Your task to perform on an android device: uninstall "WhatsApp Messenger" Image 0: 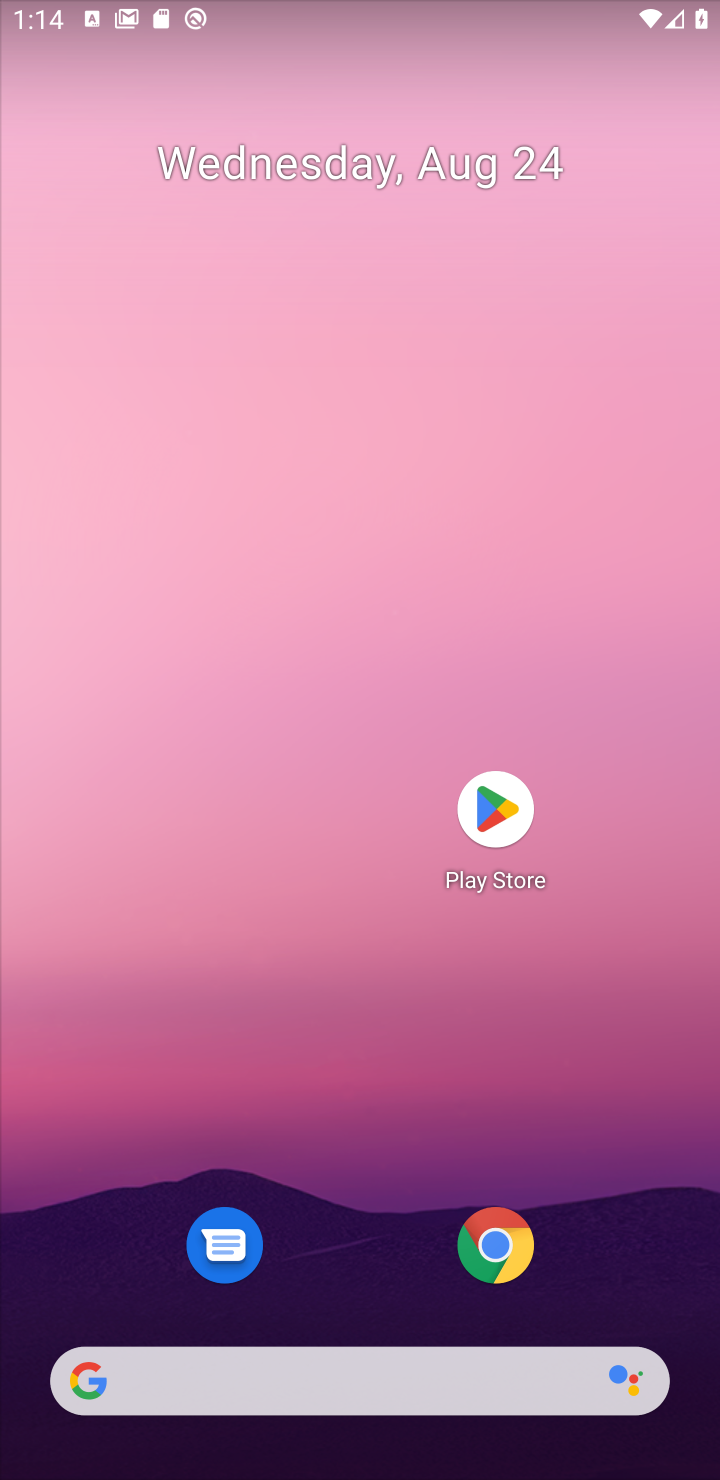
Step 0: click (476, 832)
Your task to perform on an android device: uninstall "WhatsApp Messenger" Image 1: 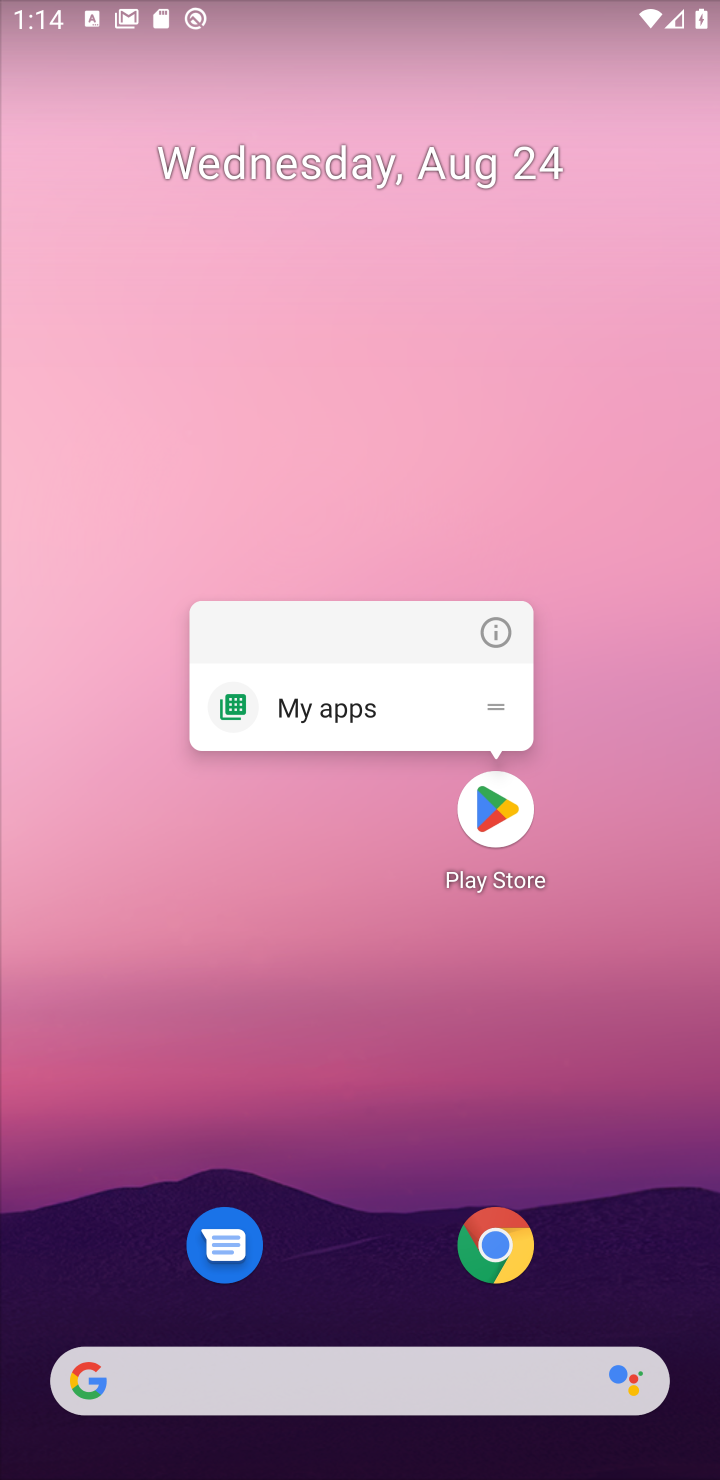
Step 1: click (469, 821)
Your task to perform on an android device: uninstall "WhatsApp Messenger" Image 2: 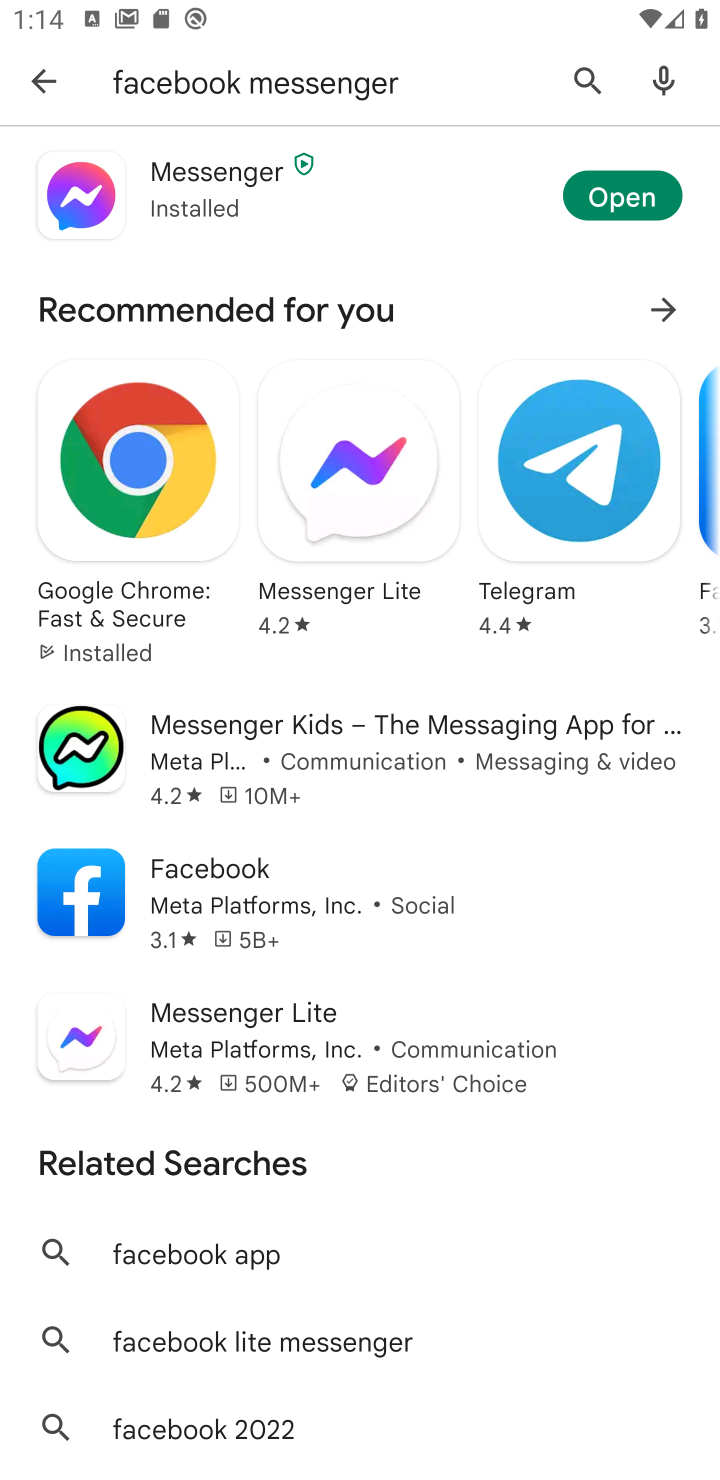
Step 2: click (580, 62)
Your task to perform on an android device: uninstall "WhatsApp Messenger" Image 3: 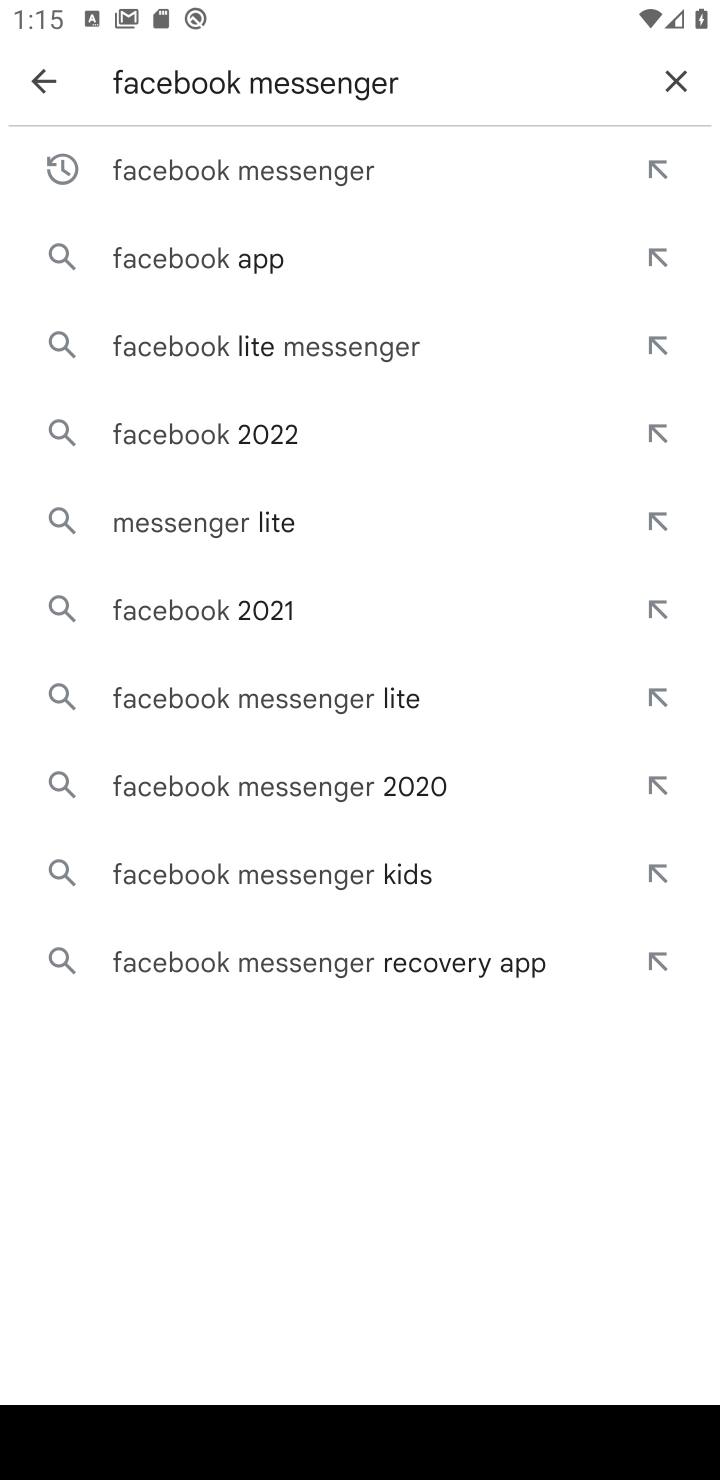
Step 3: click (676, 63)
Your task to perform on an android device: uninstall "WhatsApp Messenger" Image 4: 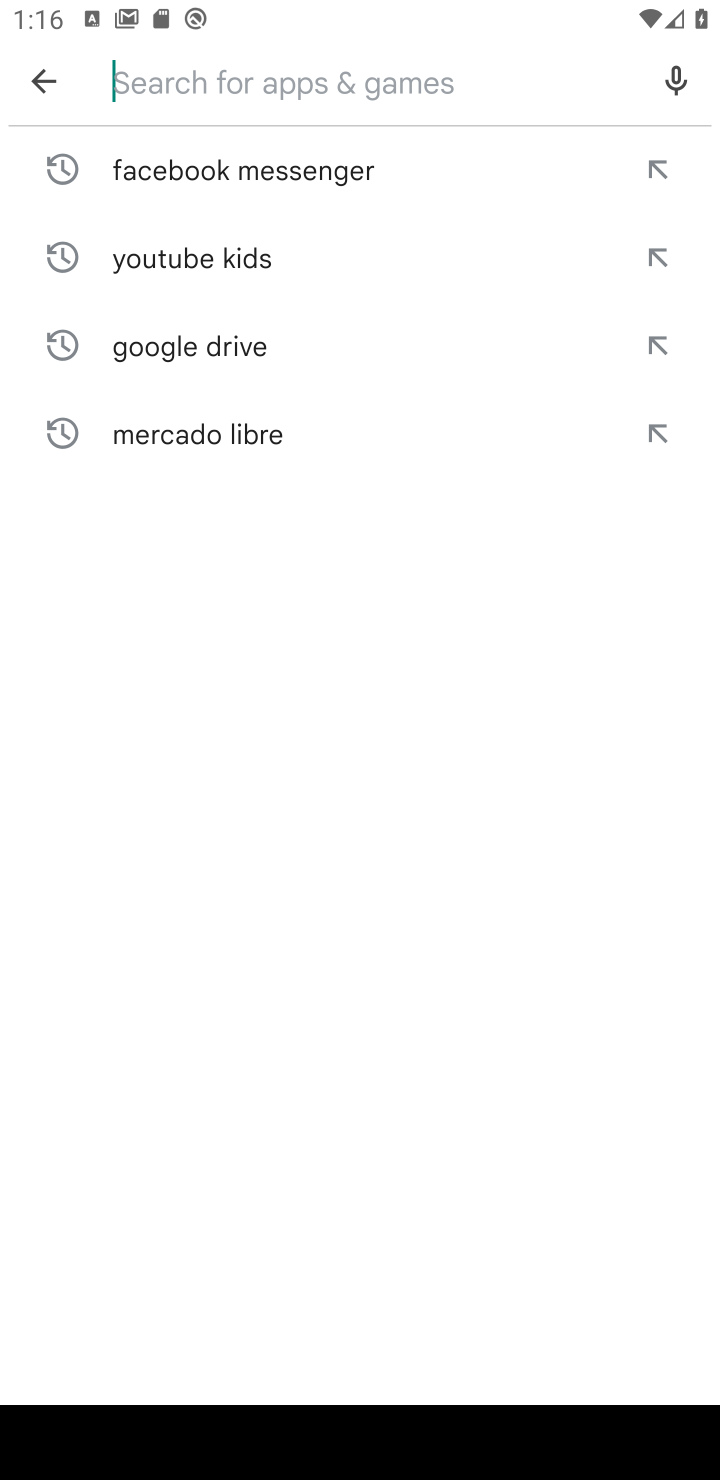
Step 4: type "WhatsApp Messenger"
Your task to perform on an android device: uninstall "WhatsApp Messenger" Image 5: 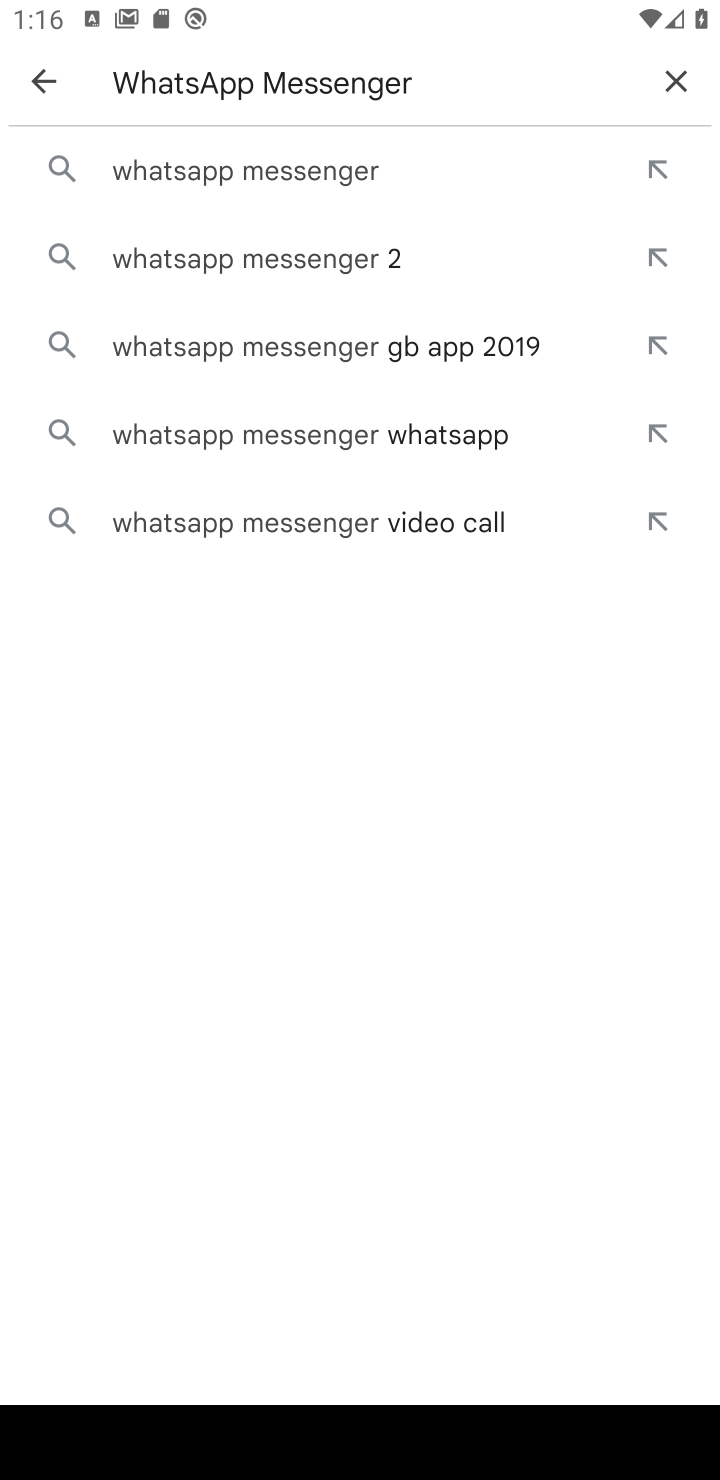
Step 5: click (285, 152)
Your task to perform on an android device: uninstall "WhatsApp Messenger" Image 6: 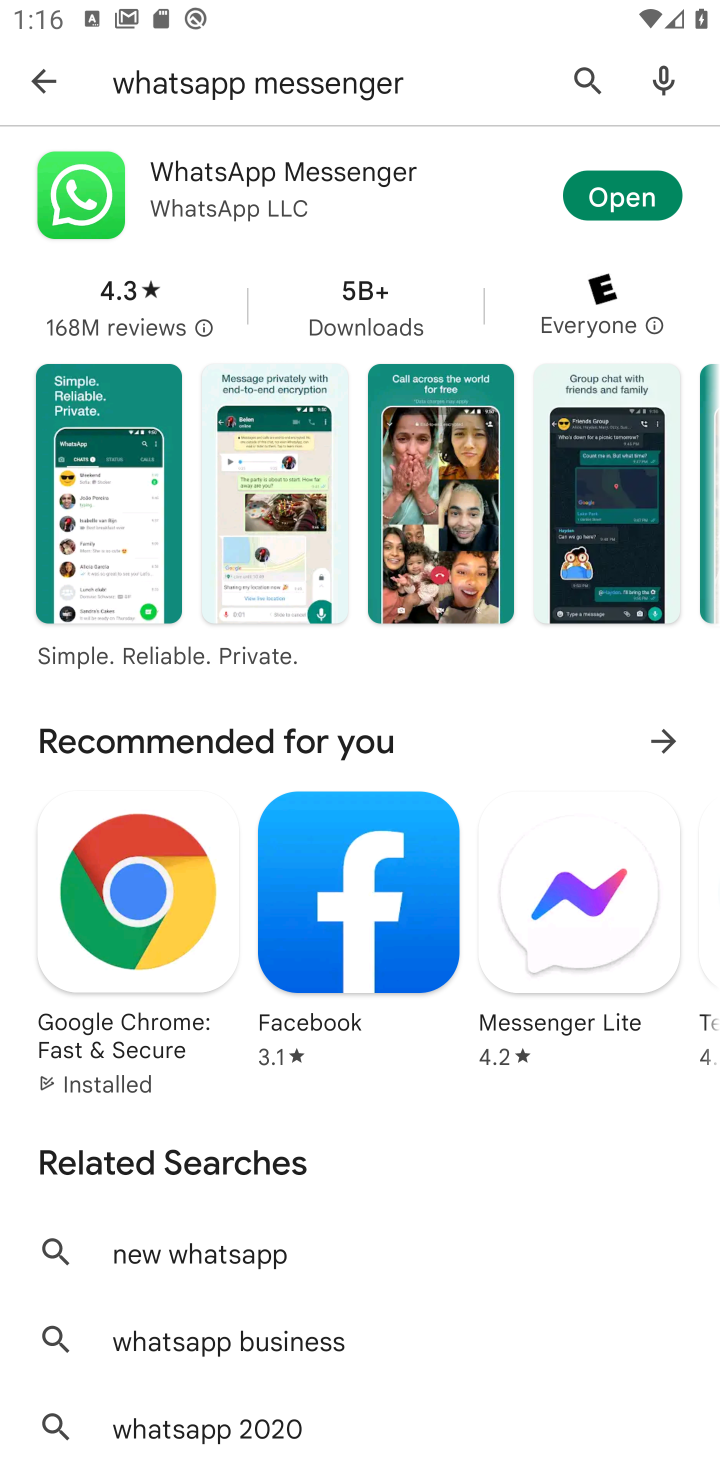
Step 6: click (231, 147)
Your task to perform on an android device: uninstall "WhatsApp Messenger" Image 7: 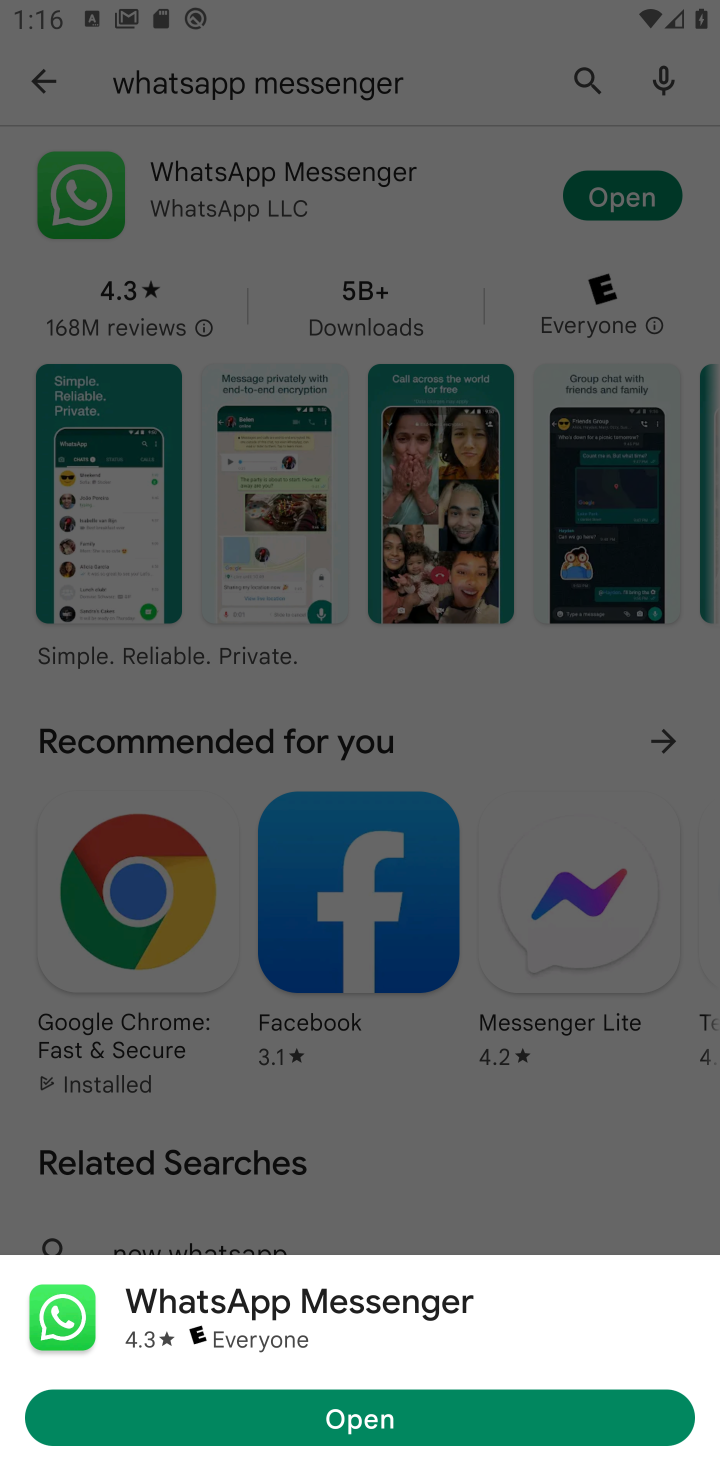
Step 7: click (340, 1272)
Your task to perform on an android device: uninstall "WhatsApp Messenger" Image 8: 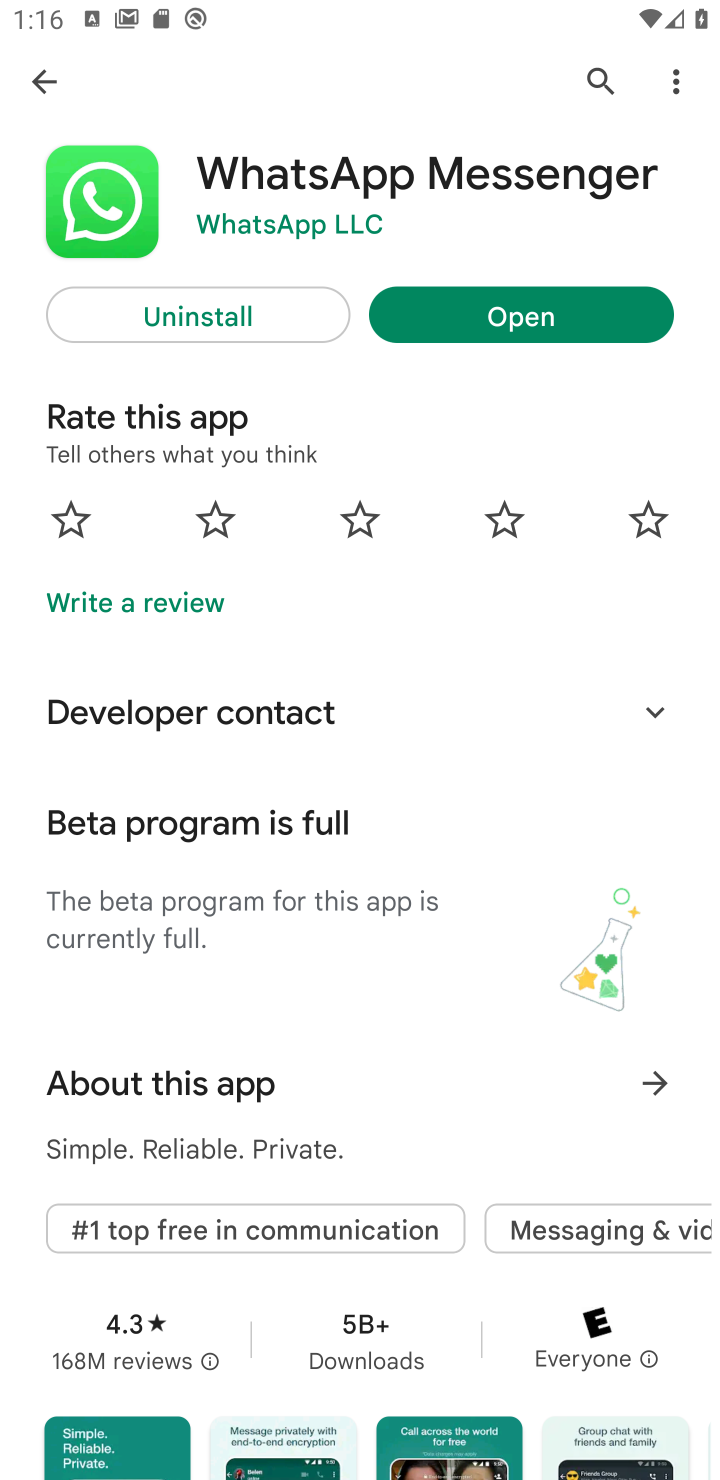
Step 8: click (223, 310)
Your task to perform on an android device: uninstall "WhatsApp Messenger" Image 9: 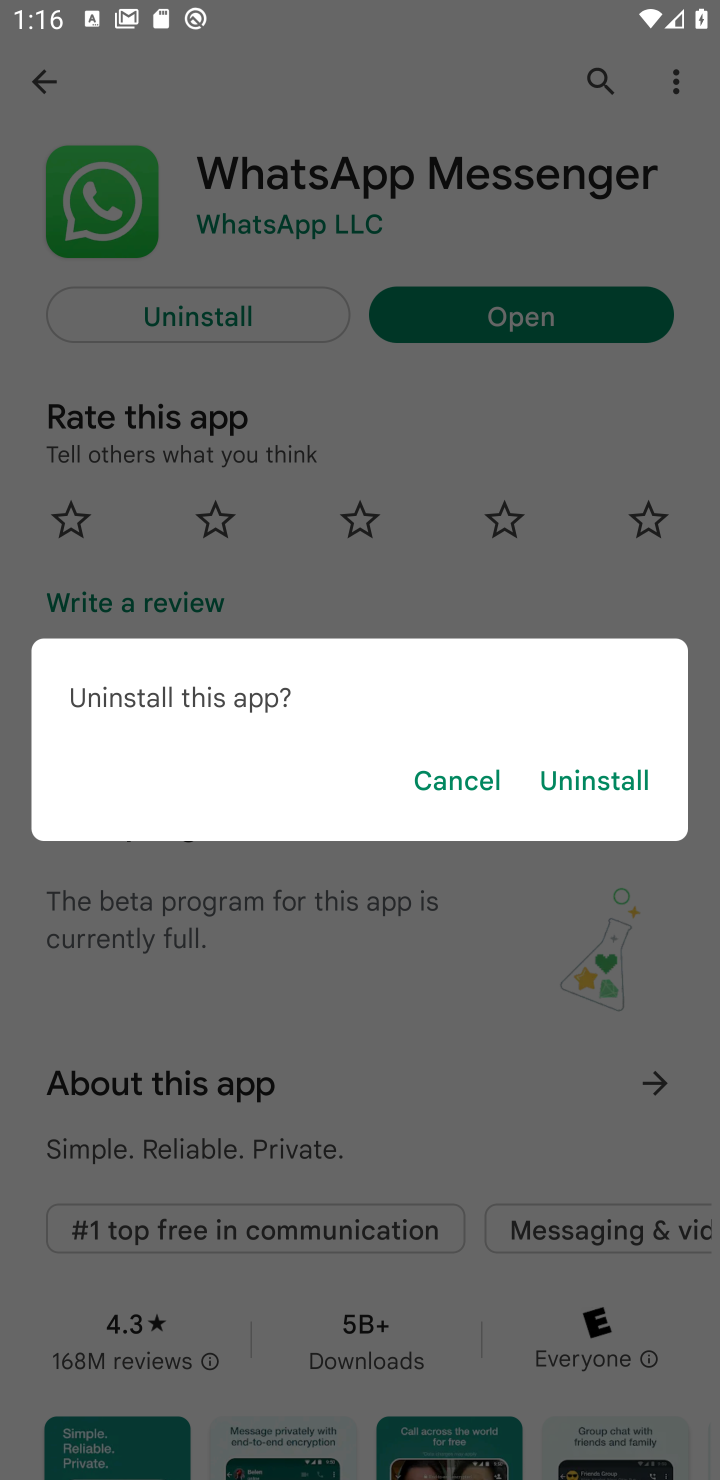
Step 9: click (614, 772)
Your task to perform on an android device: uninstall "WhatsApp Messenger" Image 10: 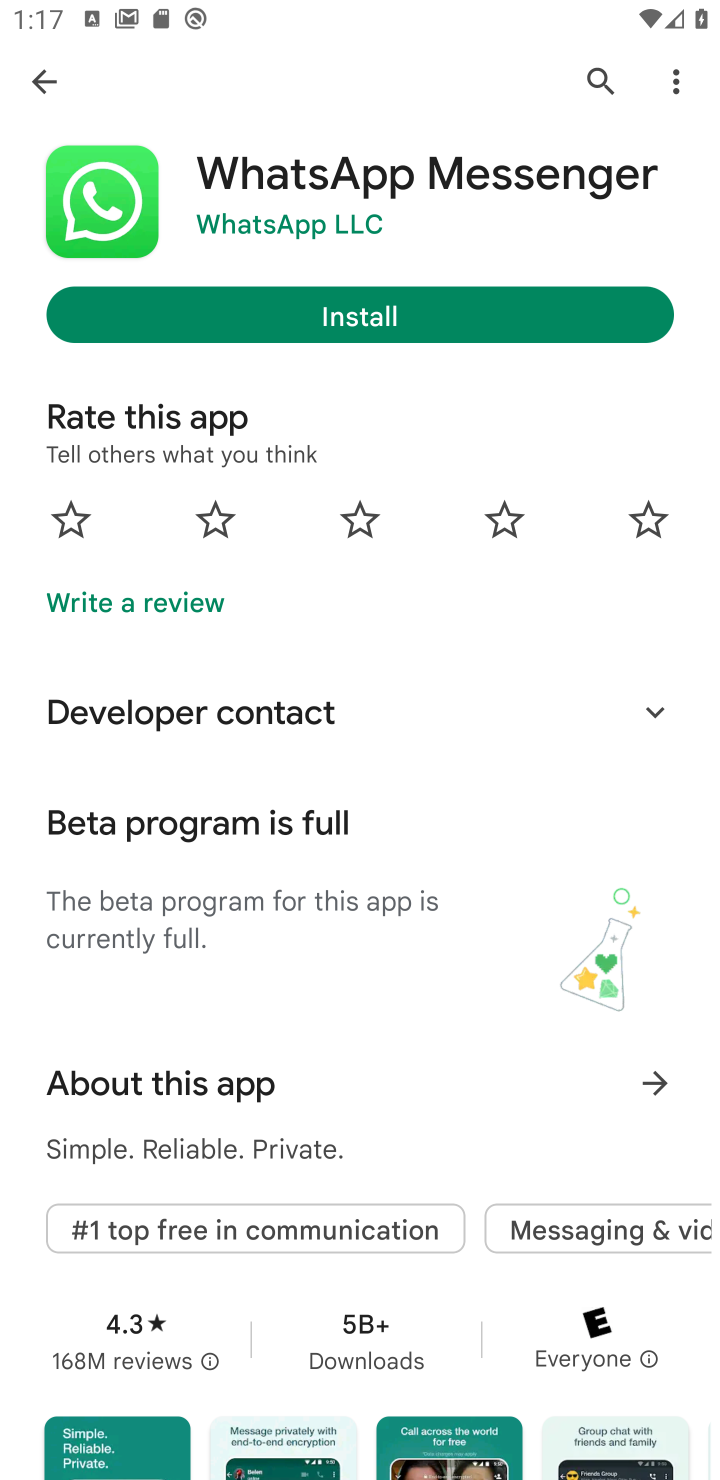
Step 10: task complete